Your task to perform on an android device: turn off airplane mode Image 0: 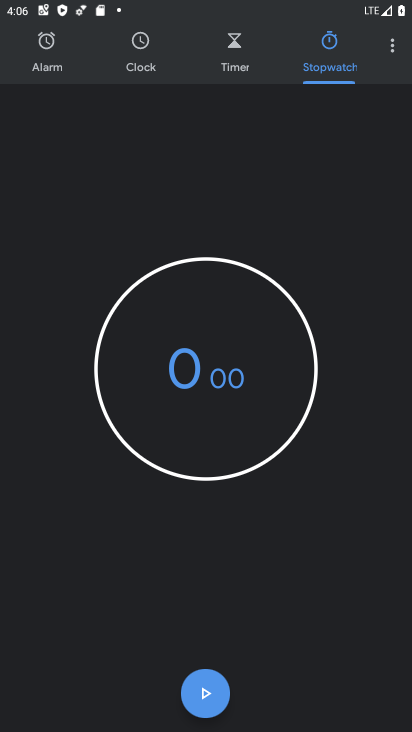
Step 0: press back button
Your task to perform on an android device: turn off airplane mode Image 1: 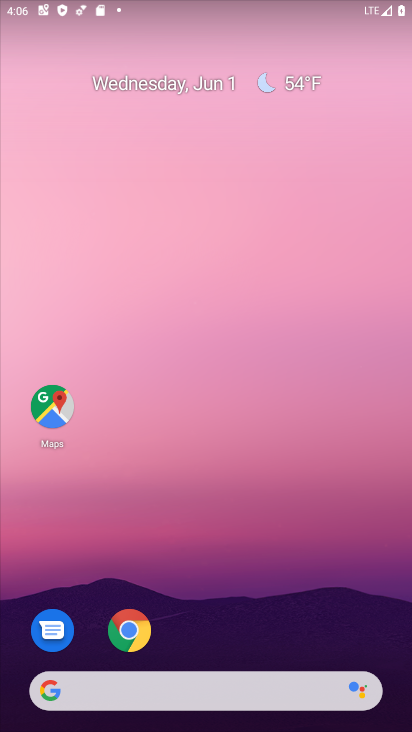
Step 1: drag from (289, 600) to (263, 0)
Your task to perform on an android device: turn off airplane mode Image 2: 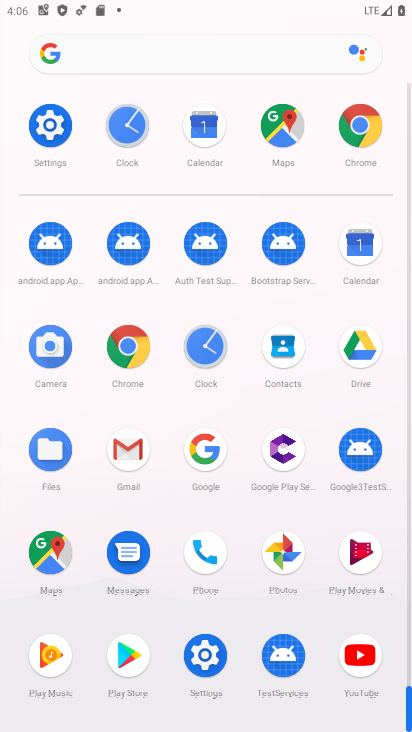
Step 2: drag from (14, 505) to (13, 172)
Your task to perform on an android device: turn off airplane mode Image 3: 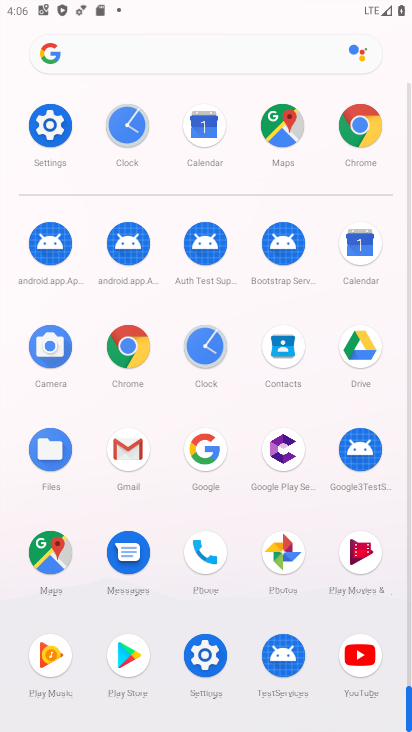
Step 3: click (204, 656)
Your task to perform on an android device: turn off airplane mode Image 4: 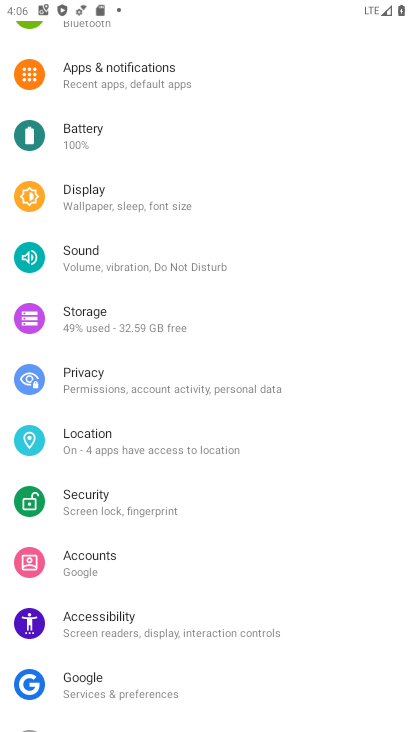
Step 4: drag from (273, 179) to (273, 637)
Your task to perform on an android device: turn off airplane mode Image 5: 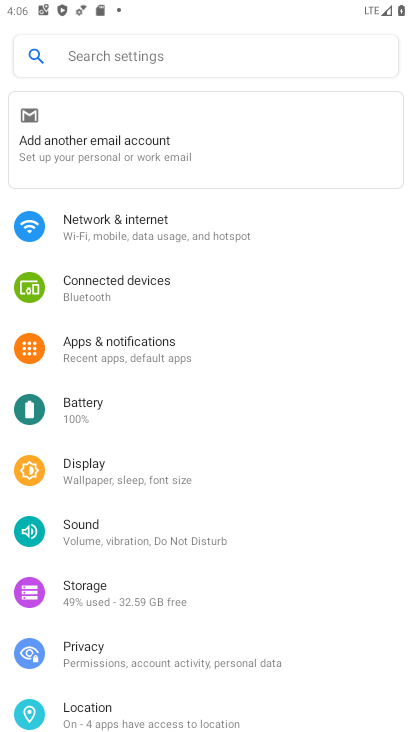
Step 5: click (176, 233)
Your task to perform on an android device: turn off airplane mode Image 6: 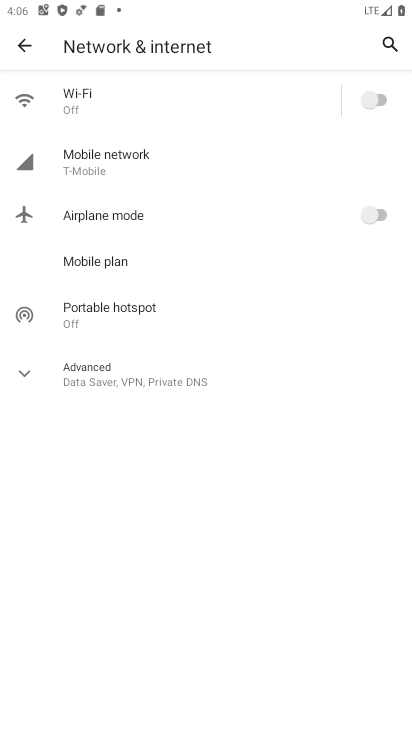
Step 6: click (42, 366)
Your task to perform on an android device: turn off airplane mode Image 7: 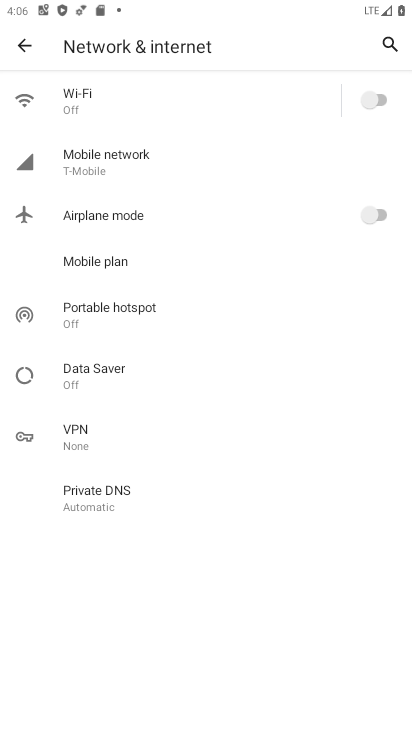
Step 7: task complete